Your task to perform on an android device: turn on the 24-hour format for clock Image 0: 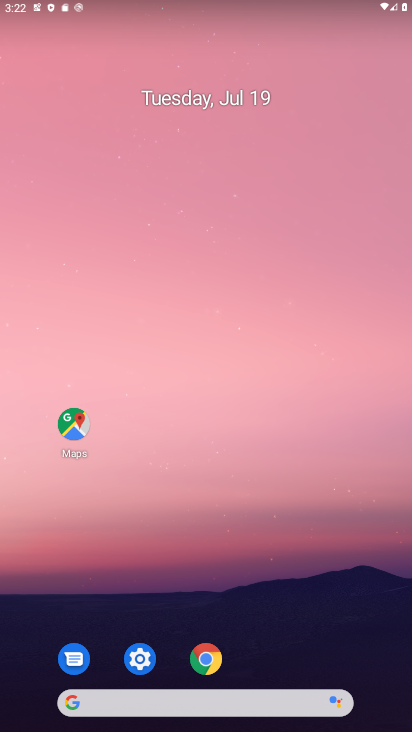
Step 0: drag from (309, 626) to (247, 175)
Your task to perform on an android device: turn on the 24-hour format for clock Image 1: 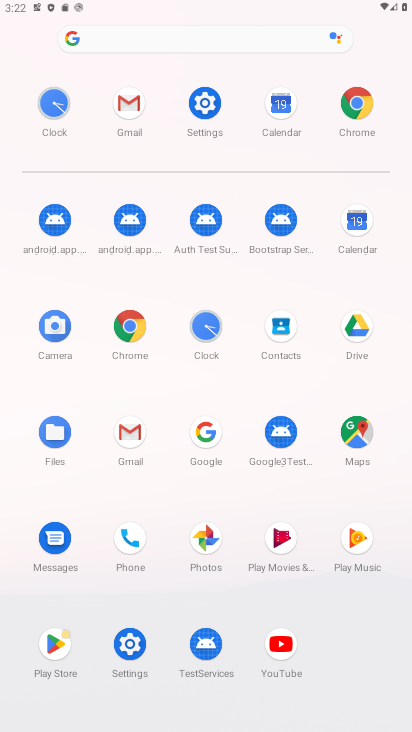
Step 1: click (203, 320)
Your task to perform on an android device: turn on the 24-hour format for clock Image 2: 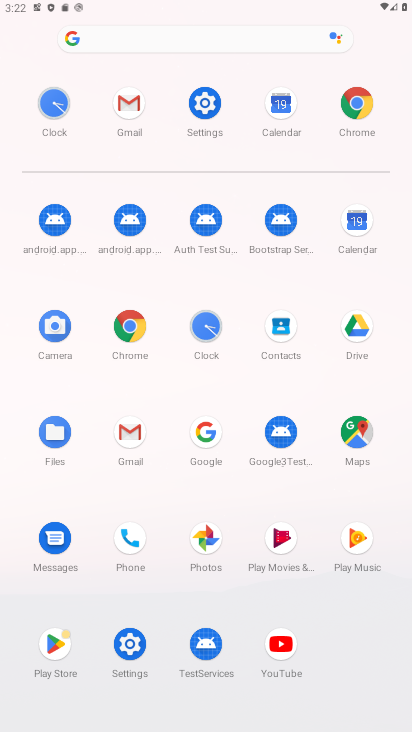
Step 2: click (204, 323)
Your task to perform on an android device: turn on the 24-hour format for clock Image 3: 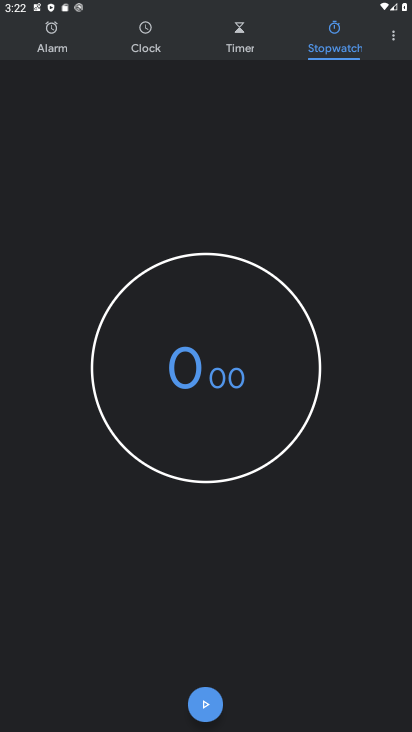
Step 3: drag from (393, 41) to (348, 121)
Your task to perform on an android device: turn on the 24-hour format for clock Image 4: 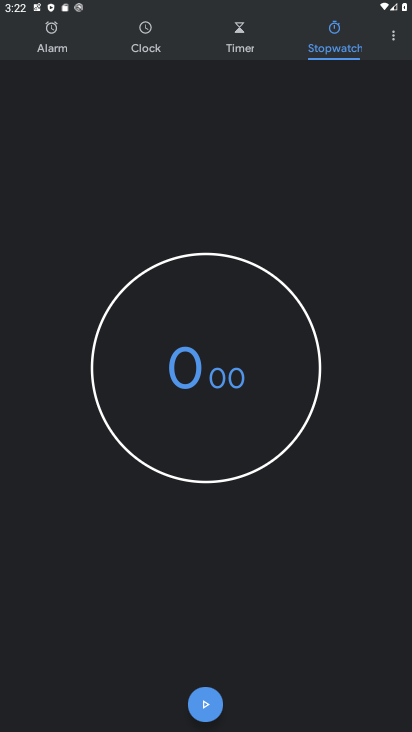
Step 4: click (311, 69)
Your task to perform on an android device: turn on the 24-hour format for clock Image 5: 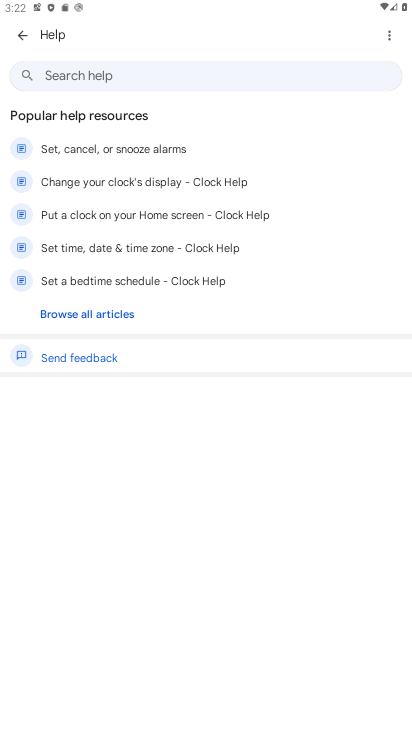
Step 5: click (28, 39)
Your task to perform on an android device: turn on the 24-hour format for clock Image 6: 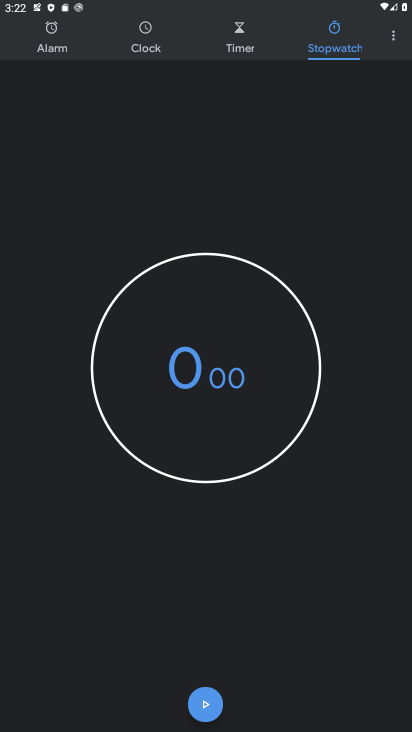
Step 6: drag from (390, 38) to (310, 68)
Your task to perform on an android device: turn on the 24-hour format for clock Image 7: 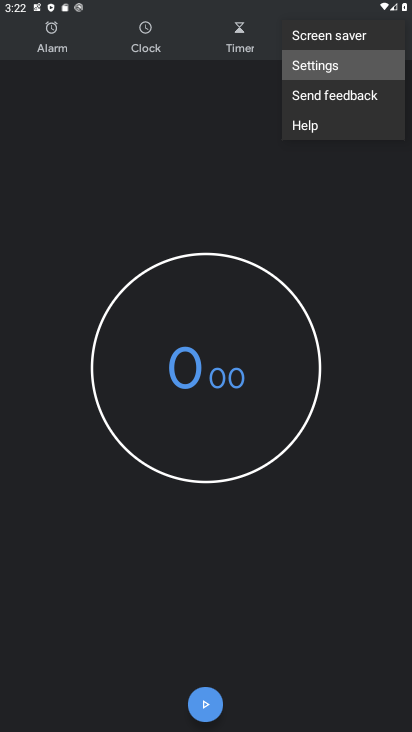
Step 7: click (316, 71)
Your task to perform on an android device: turn on the 24-hour format for clock Image 8: 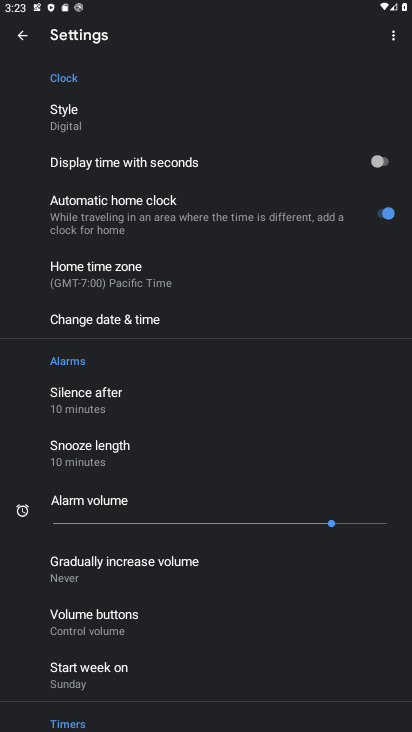
Step 8: click (94, 328)
Your task to perform on an android device: turn on the 24-hour format for clock Image 9: 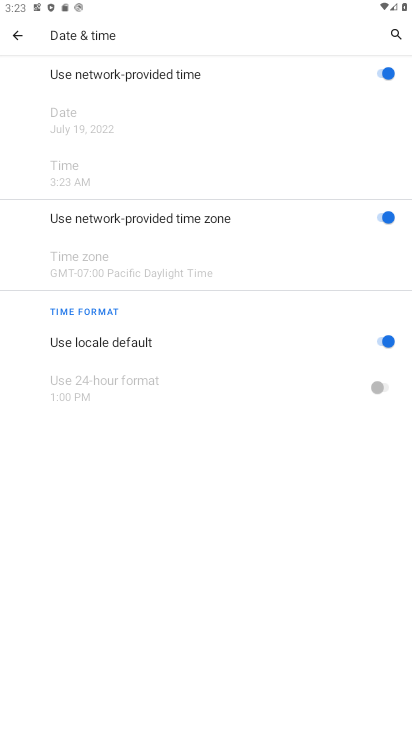
Step 9: click (382, 341)
Your task to perform on an android device: turn on the 24-hour format for clock Image 10: 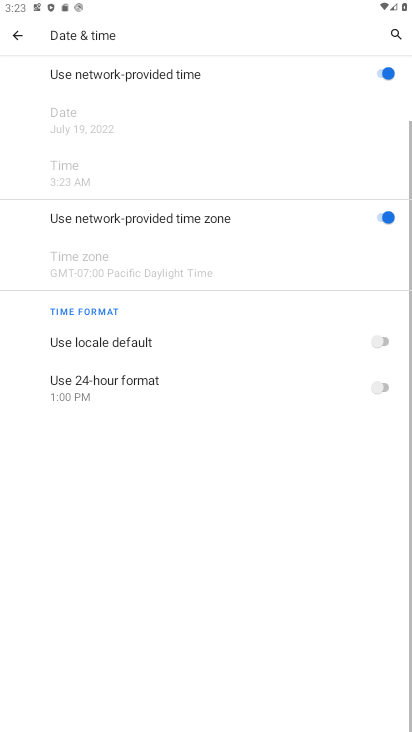
Step 10: click (378, 388)
Your task to perform on an android device: turn on the 24-hour format for clock Image 11: 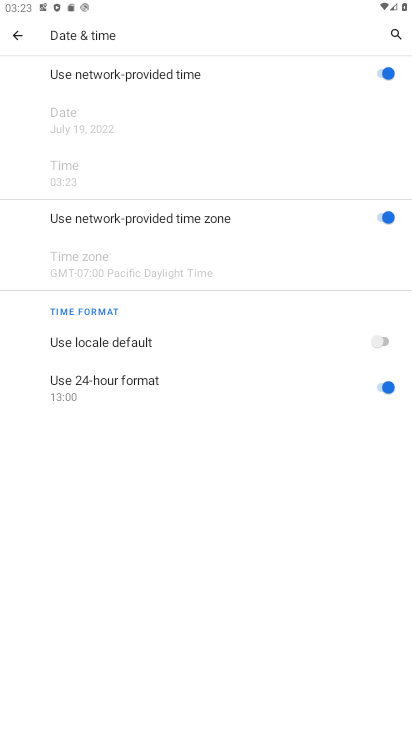
Step 11: task complete